Your task to perform on an android device: Go to Wikipedia Image 0: 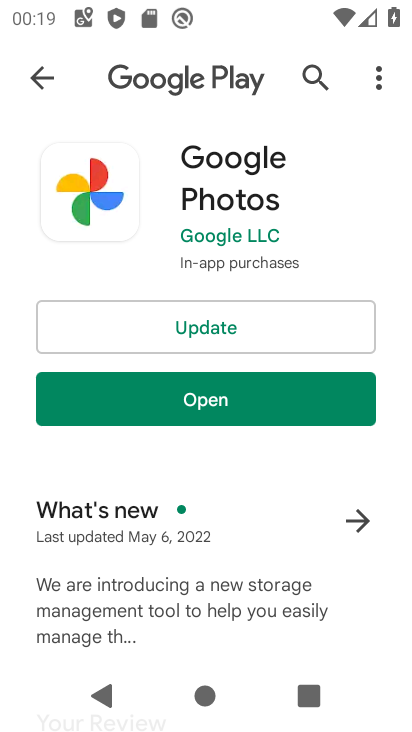
Step 0: press home button
Your task to perform on an android device: Go to Wikipedia Image 1: 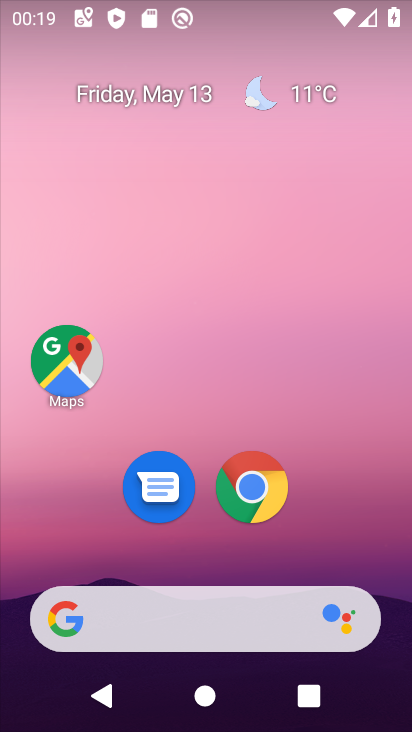
Step 1: click (258, 498)
Your task to perform on an android device: Go to Wikipedia Image 2: 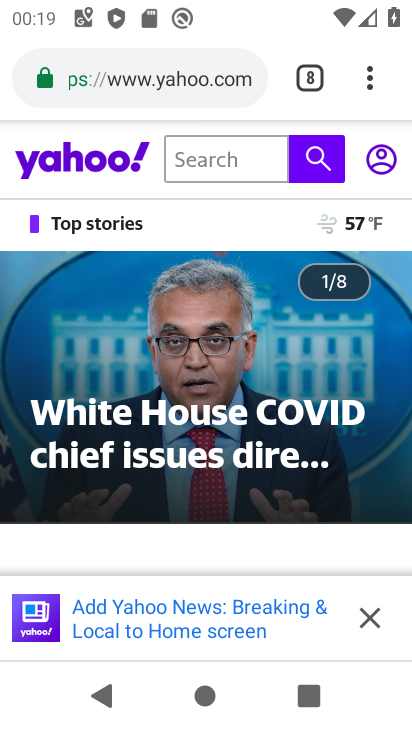
Step 2: click (301, 80)
Your task to perform on an android device: Go to Wikipedia Image 3: 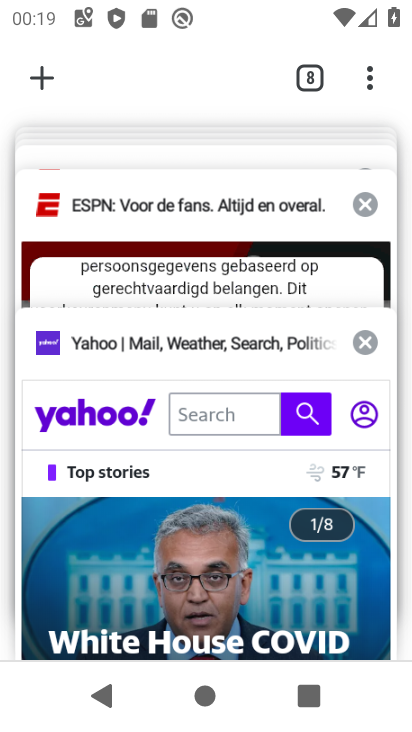
Step 3: click (43, 95)
Your task to perform on an android device: Go to Wikipedia Image 4: 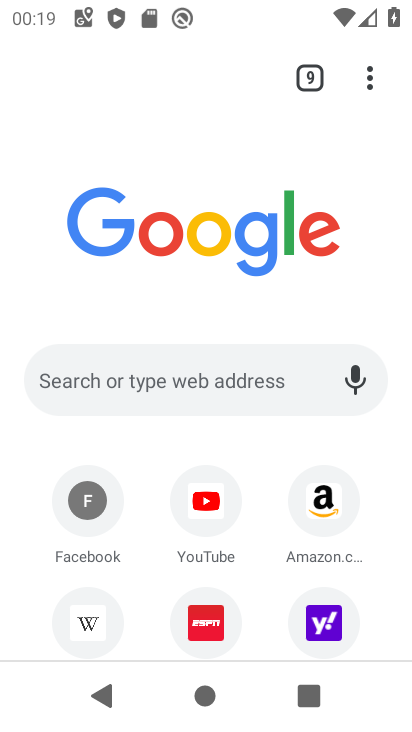
Step 4: click (86, 636)
Your task to perform on an android device: Go to Wikipedia Image 5: 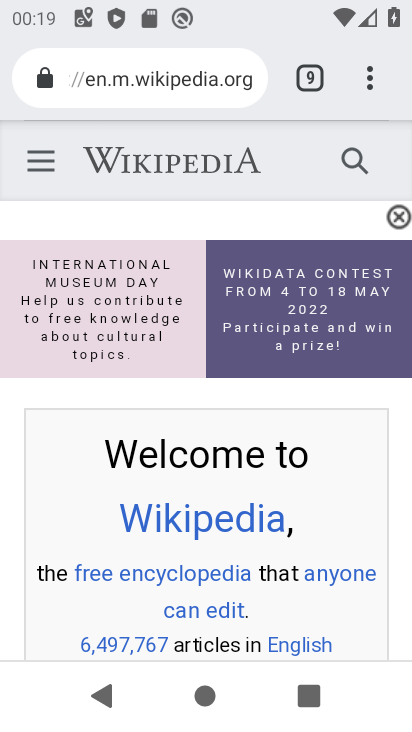
Step 5: task complete